Your task to perform on an android device: choose inbox layout in the gmail app Image 0: 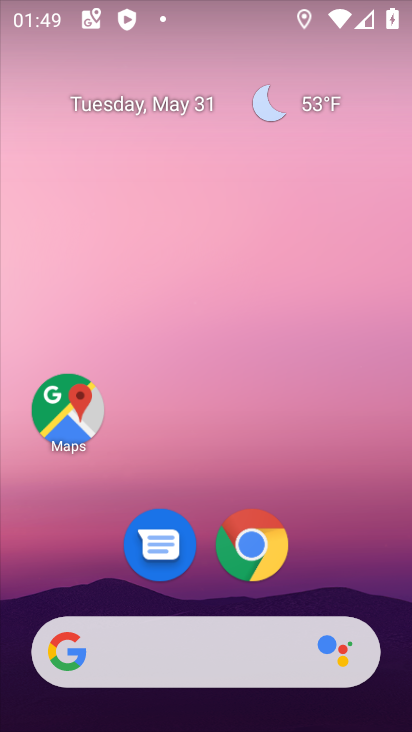
Step 0: drag from (347, 583) to (323, 4)
Your task to perform on an android device: choose inbox layout in the gmail app Image 1: 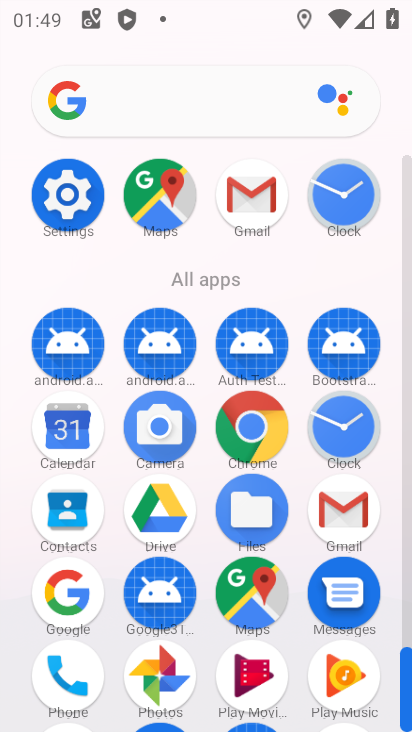
Step 1: click (348, 501)
Your task to perform on an android device: choose inbox layout in the gmail app Image 2: 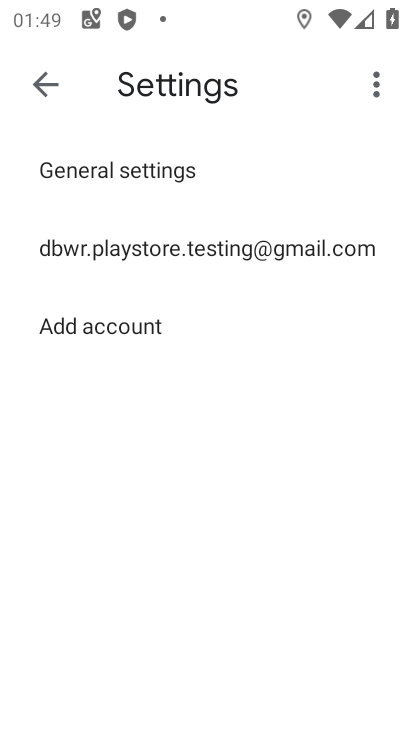
Step 2: click (33, 87)
Your task to perform on an android device: choose inbox layout in the gmail app Image 3: 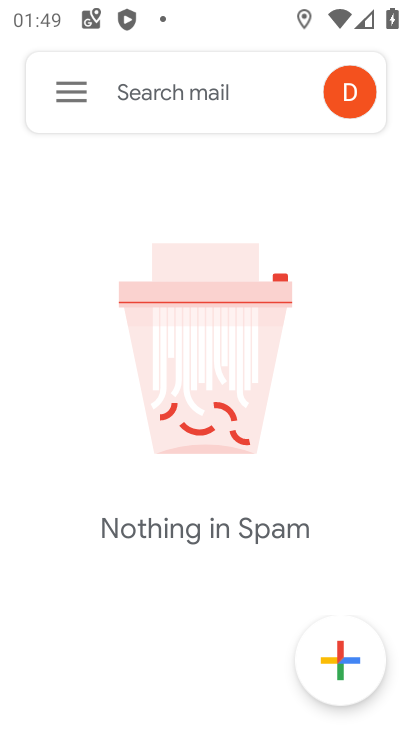
Step 3: click (97, 84)
Your task to perform on an android device: choose inbox layout in the gmail app Image 4: 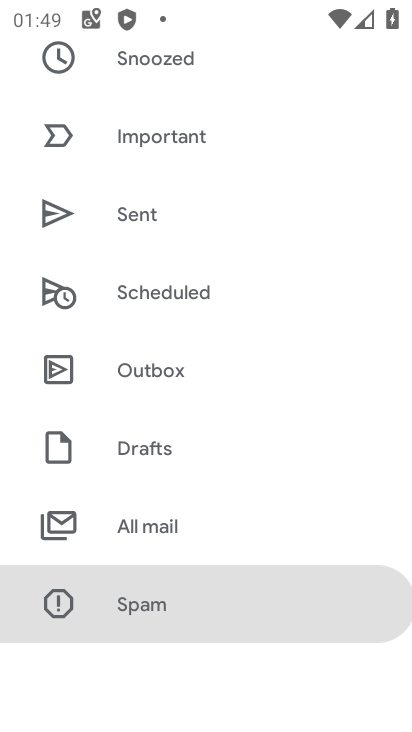
Step 4: drag from (169, 611) to (175, 238)
Your task to perform on an android device: choose inbox layout in the gmail app Image 5: 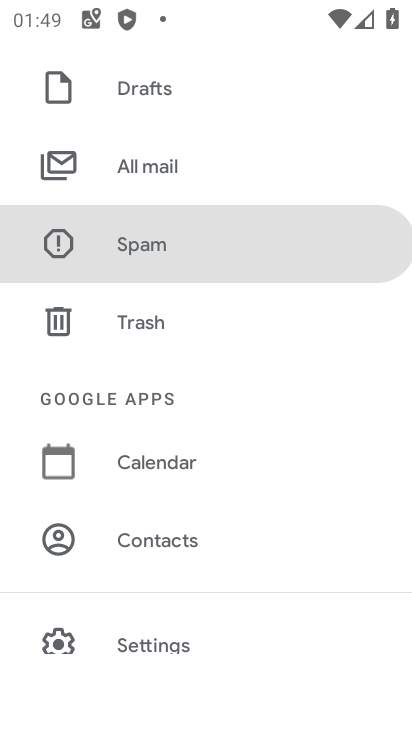
Step 5: click (188, 640)
Your task to perform on an android device: choose inbox layout in the gmail app Image 6: 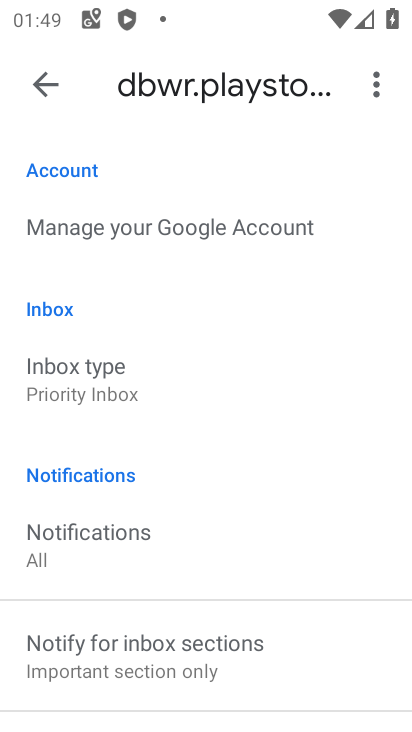
Step 6: click (149, 385)
Your task to perform on an android device: choose inbox layout in the gmail app Image 7: 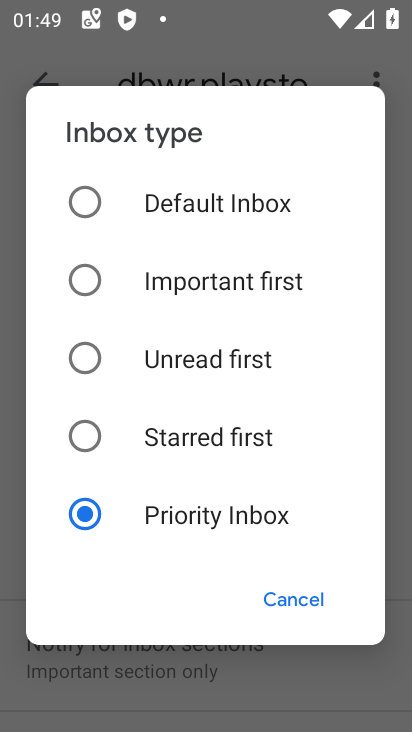
Step 7: click (153, 367)
Your task to perform on an android device: choose inbox layout in the gmail app Image 8: 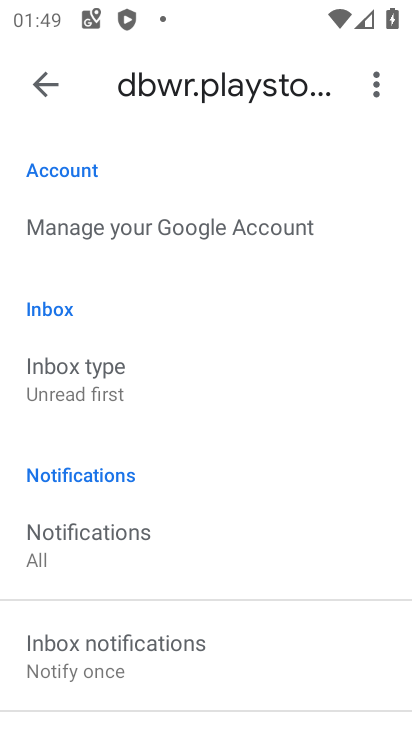
Step 8: task complete